Your task to perform on an android device: Open calendar and show me the first week of next month Image 0: 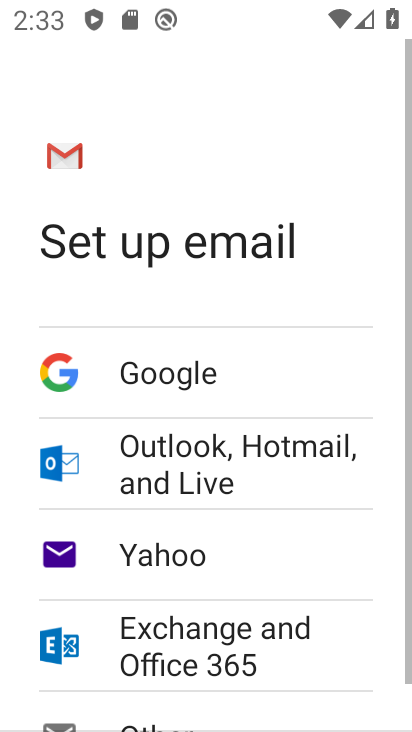
Step 0: press home button
Your task to perform on an android device: Open calendar and show me the first week of next month Image 1: 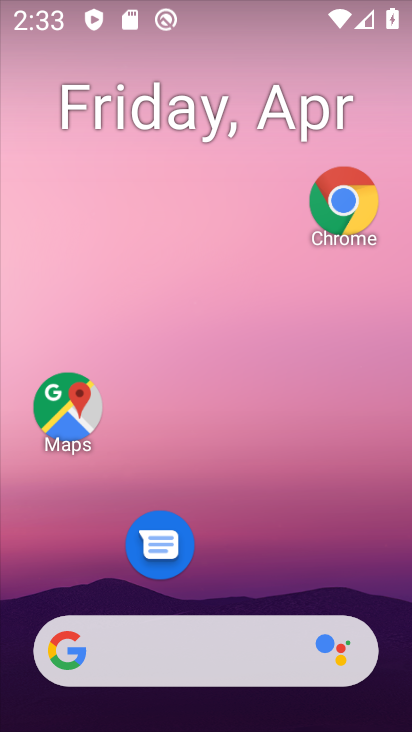
Step 1: drag from (228, 558) to (308, 278)
Your task to perform on an android device: Open calendar and show me the first week of next month Image 2: 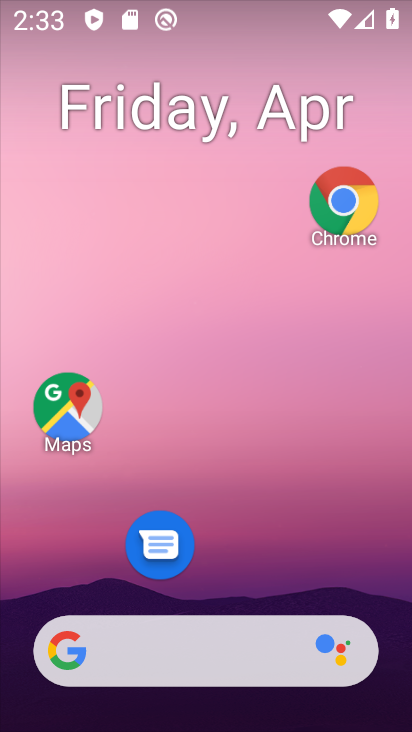
Step 2: drag from (251, 578) to (353, 2)
Your task to perform on an android device: Open calendar and show me the first week of next month Image 3: 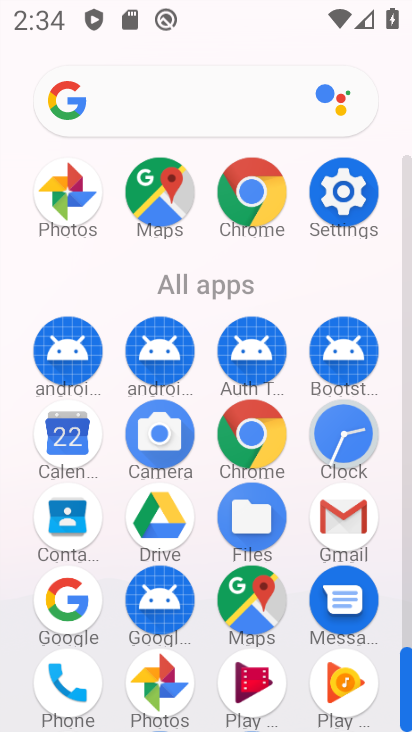
Step 3: click (73, 436)
Your task to perform on an android device: Open calendar and show me the first week of next month Image 4: 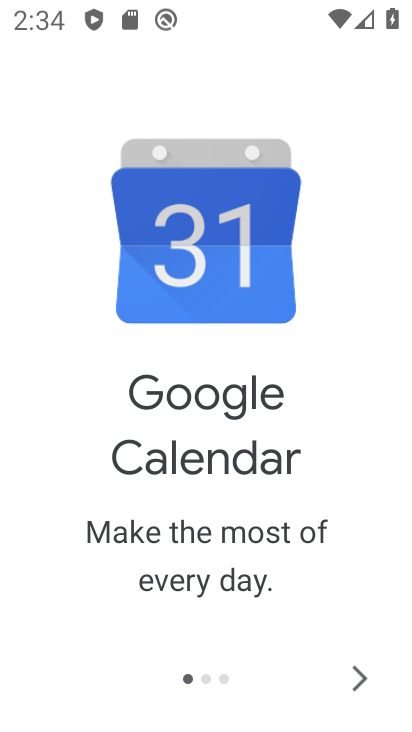
Step 4: click (354, 680)
Your task to perform on an android device: Open calendar and show me the first week of next month Image 5: 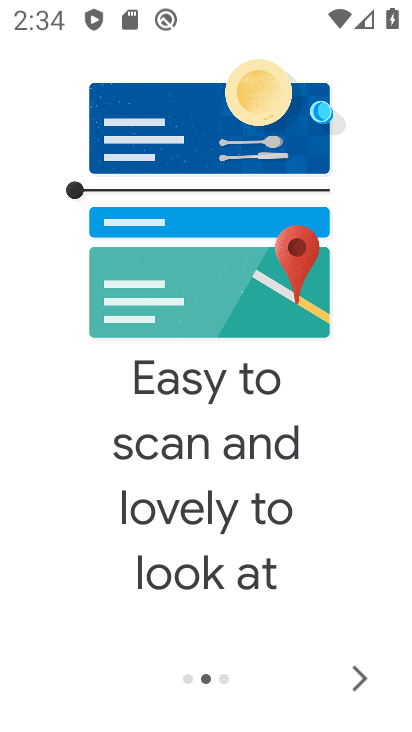
Step 5: click (354, 680)
Your task to perform on an android device: Open calendar and show me the first week of next month Image 6: 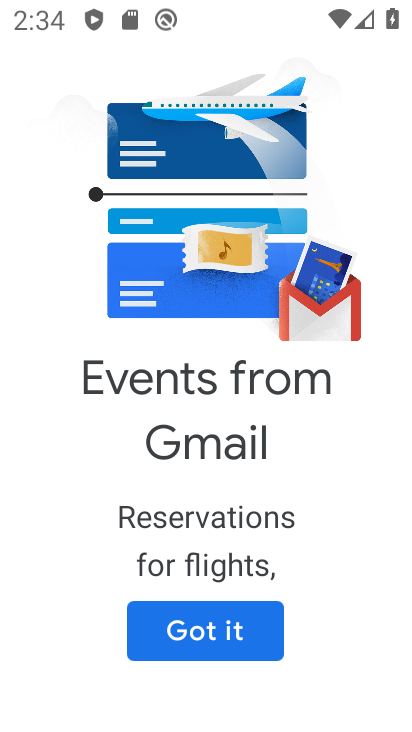
Step 6: click (353, 680)
Your task to perform on an android device: Open calendar and show me the first week of next month Image 7: 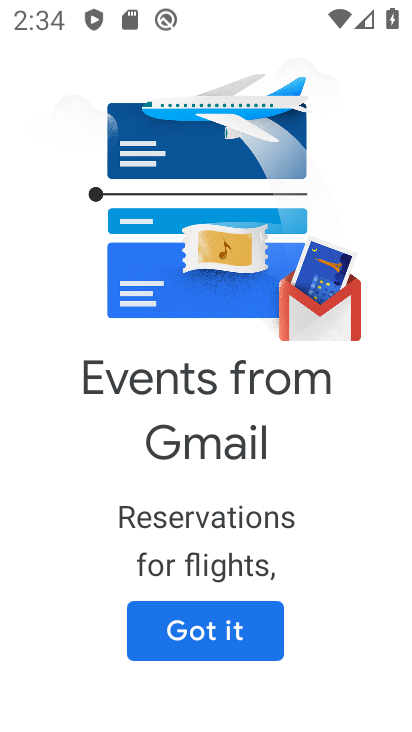
Step 7: click (225, 641)
Your task to perform on an android device: Open calendar and show me the first week of next month Image 8: 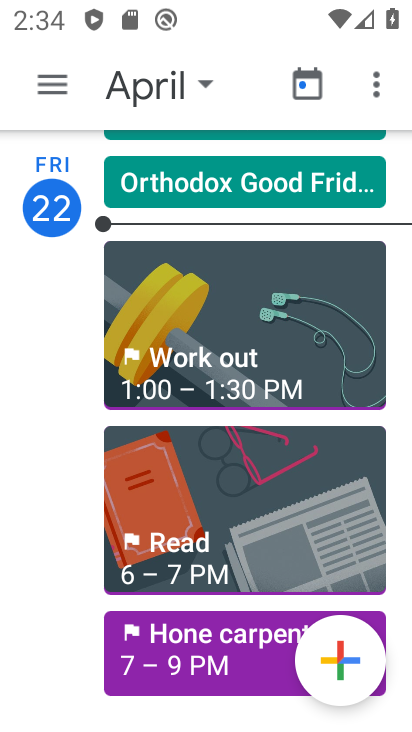
Step 8: click (55, 81)
Your task to perform on an android device: Open calendar and show me the first week of next month Image 9: 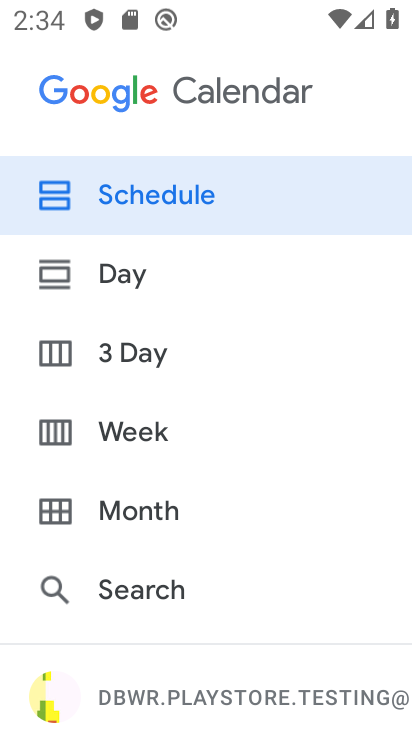
Step 9: drag from (110, 500) to (144, 288)
Your task to perform on an android device: Open calendar and show me the first week of next month Image 10: 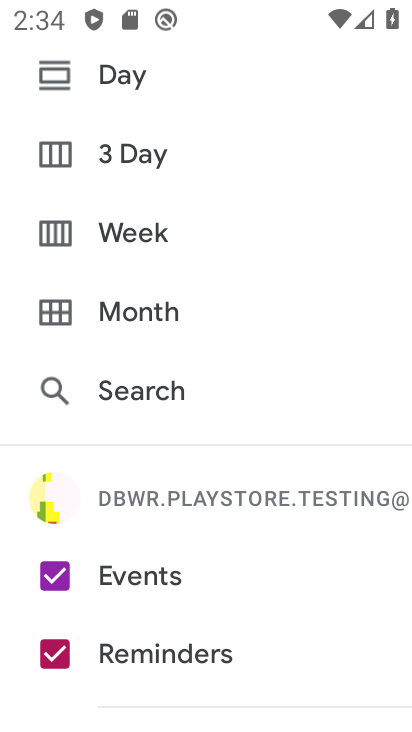
Step 10: click (116, 324)
Your task to perform on an android device: Open calendar and show me the first week of next month Image 11: 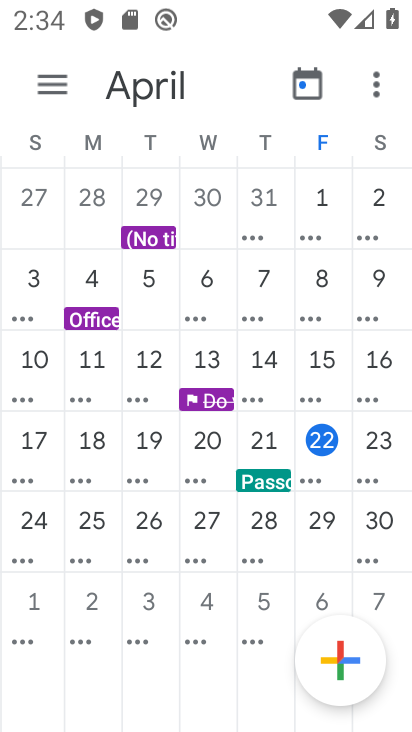
Step 11: click (39, 92)
Your task to perform on an android device: Open calendar and show me the first week of next month Image 12: 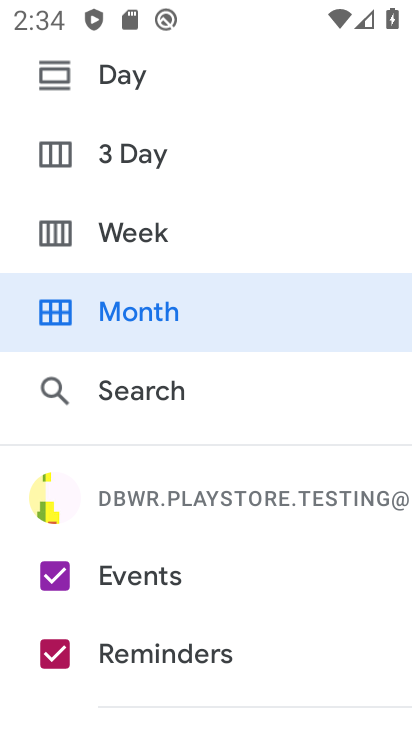
Step 12: click (132, 238)
Your task to perform on an android device: Open calendar and show me the first week of next month Image 13: 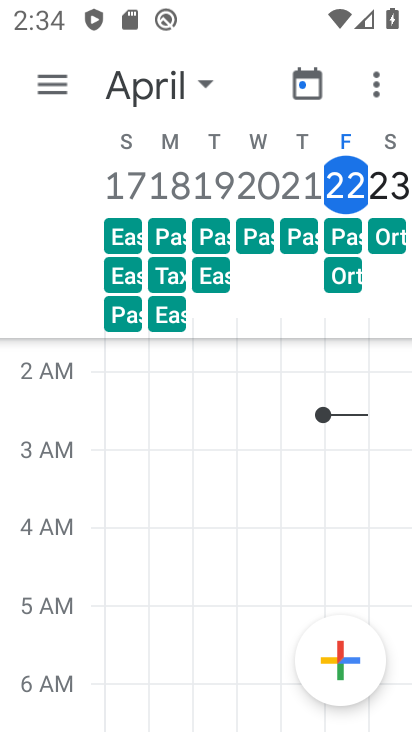
Step 13: task complete